Your task to perform on an android device: open app "Facebook Lite" (install if not already installed) Image 0: 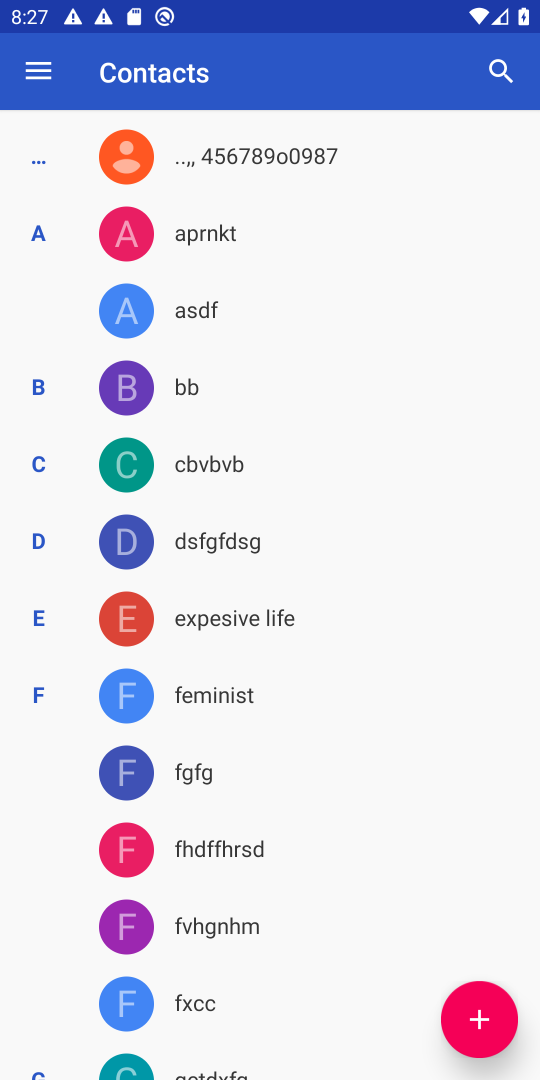
Step 0: press home button
Your task to perform on an android device: open app "Facebook Lite" (install if not already installed) Image 1: 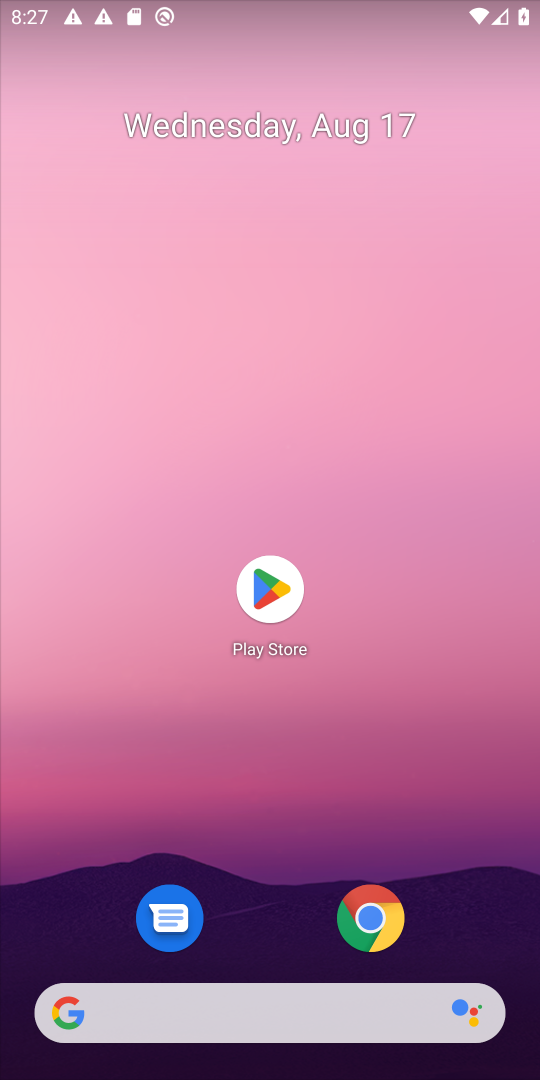
Step 1: click (272, 592)
Your task to perform on an android device: open app "Facebook Lite" (install if not already installed) Image 2: 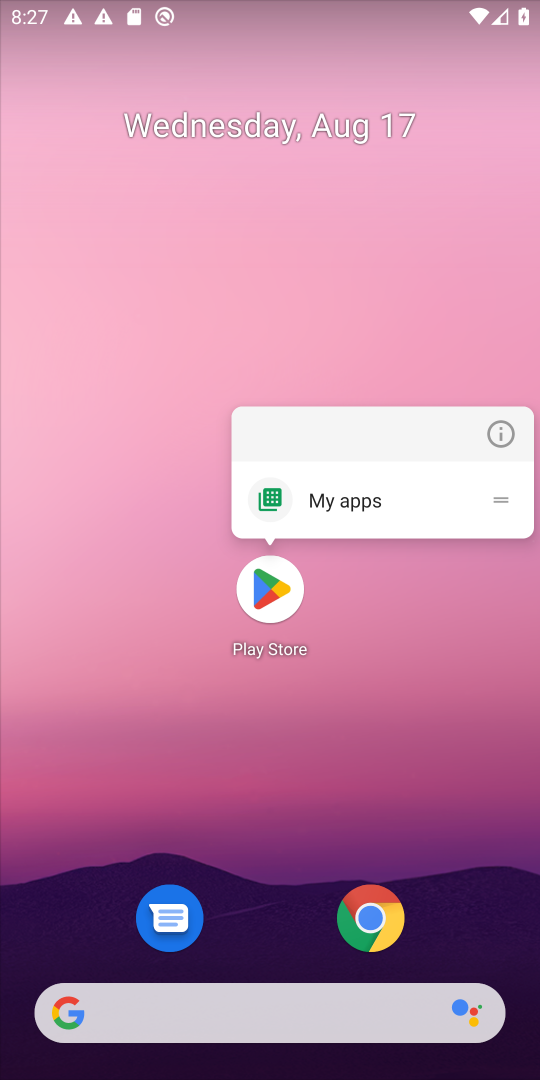
Step 2: click (274, 588)
Your task to perform on an android device: open app "Facebook Lite" (install if not already installed) Image 3: 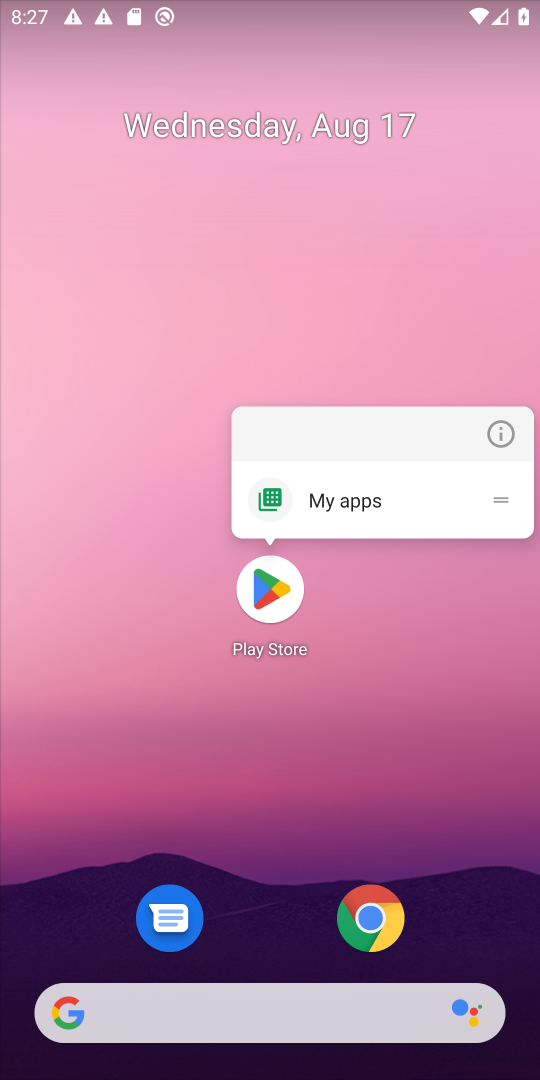
Step 3: click (274, 590)
Your task to perform on an android device: open app "Facebook Lite" (install if not already installed) Image 4: 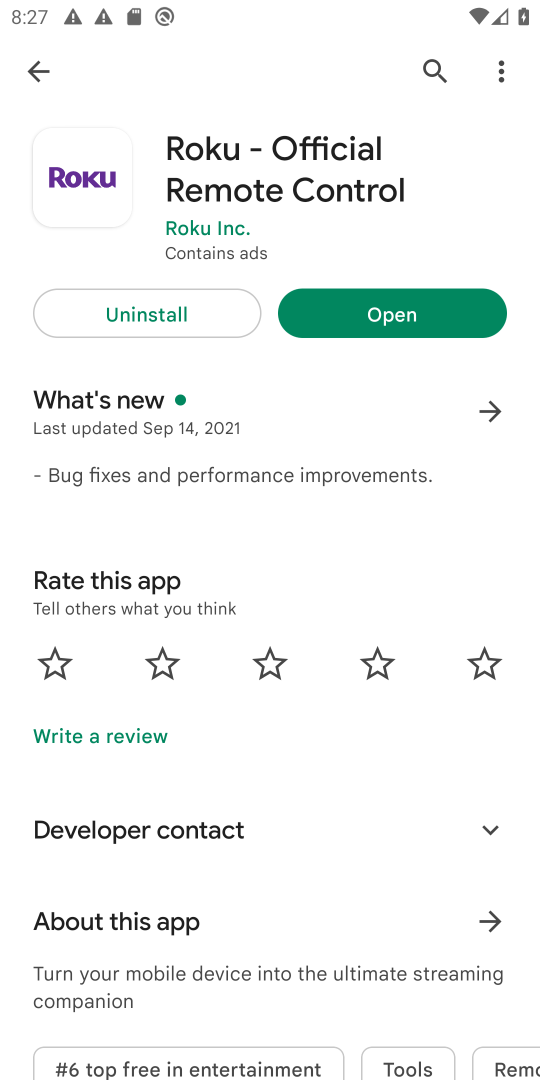
Step 4: click (432, 66)
Your task to perform on an android device: open app "Facebook Lite" (install if not already installed) Image 5: 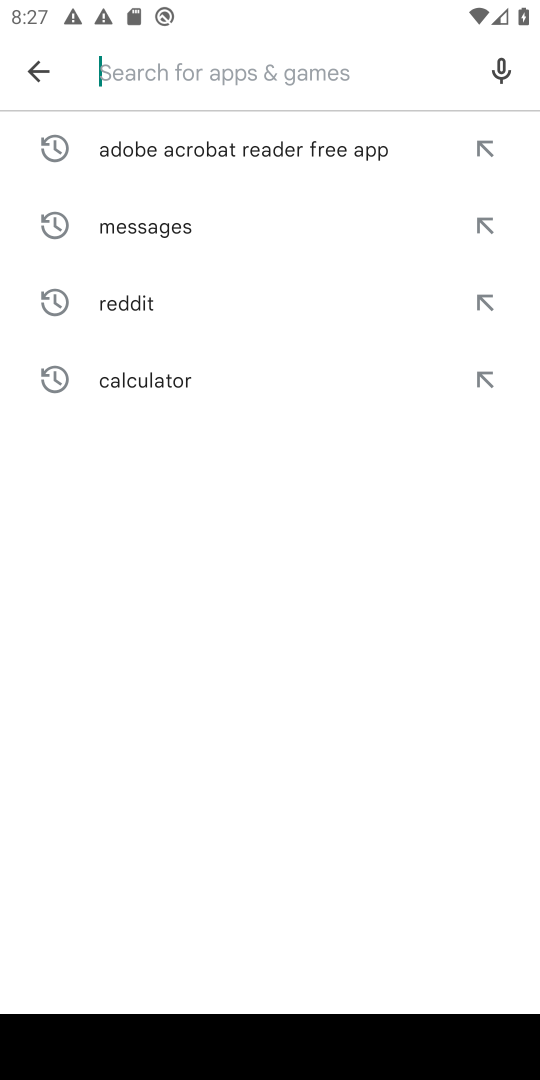
Step 5: type "Facebook Lite"
Your task to perform on an android device: open app "Facebook Lite" (install if not already installed) Image 6: 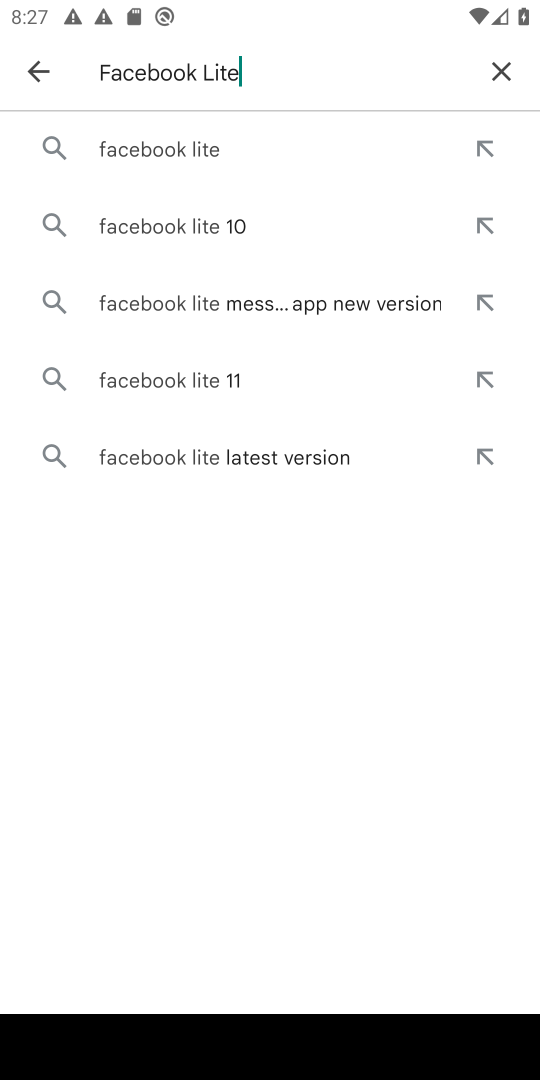
Step 6: click (200, 158)
Your task to perform on an android device: open app "Facebook Lite" (install if not already installed) Image 7: 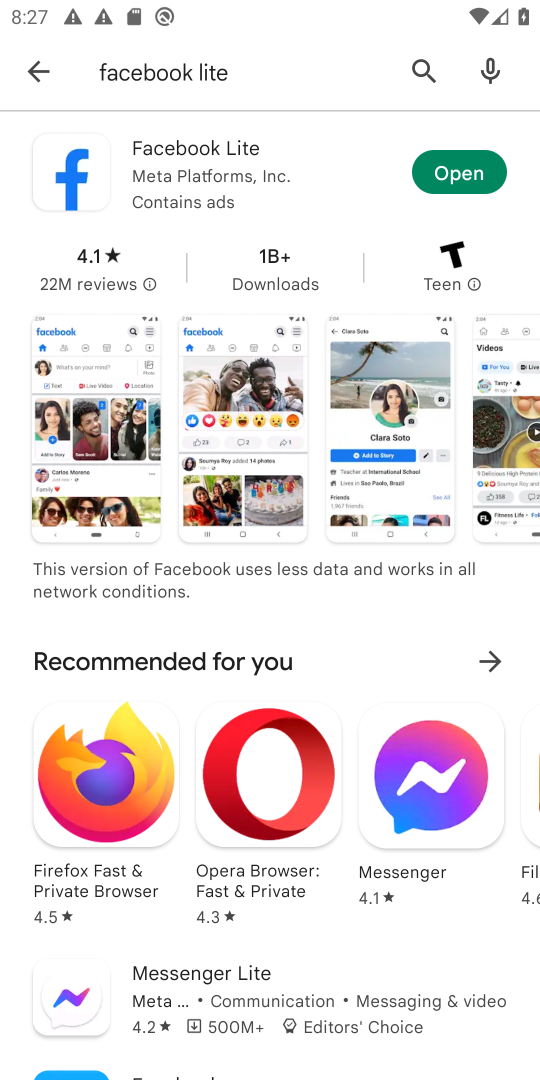
Step 7: click (435, 167)
Your task to perform on an android device: open app "Facebook Lite" (install if not already installed) Image 8: 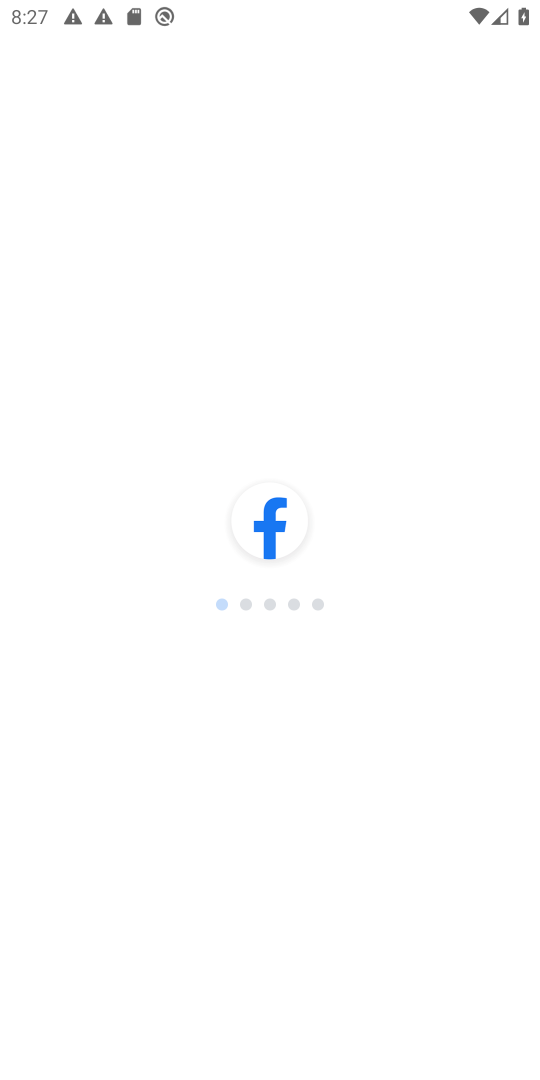
Step 8: task complete